Your task to perform on an android device: Show the shopping cart on walmart.com. Add "macbook pro 15 inch" to the cart on walmart.com, then select checkout. Image 0: 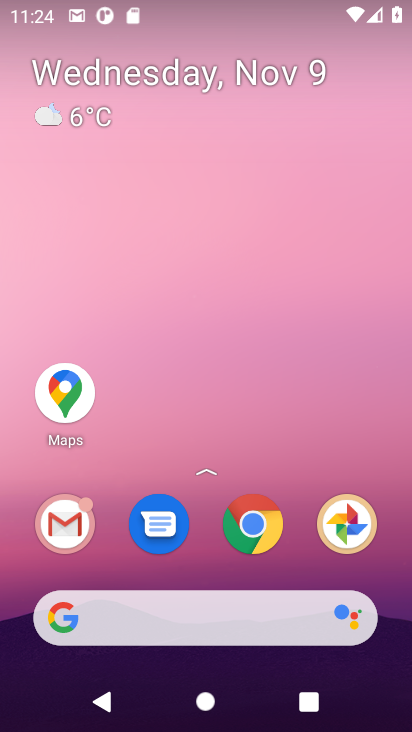
Step 0: click (192, 618)
Your task to perform on an android device: Show the shopping cart on walmart.com. Add "macbook pro 15 inch" to the cart on walmart.com, then select checkout. Image 1: 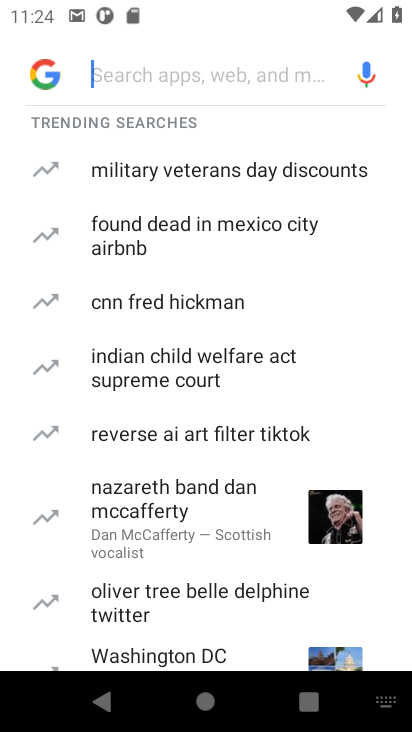
Step 1: type "macbook pro 15 inch on walmart.com"
Your task to perform on an android device: Show the shopping cart on walmart.com. Add "macbook pro 15 inch" to the cart on walmart.com, then select checkout. Image 2: 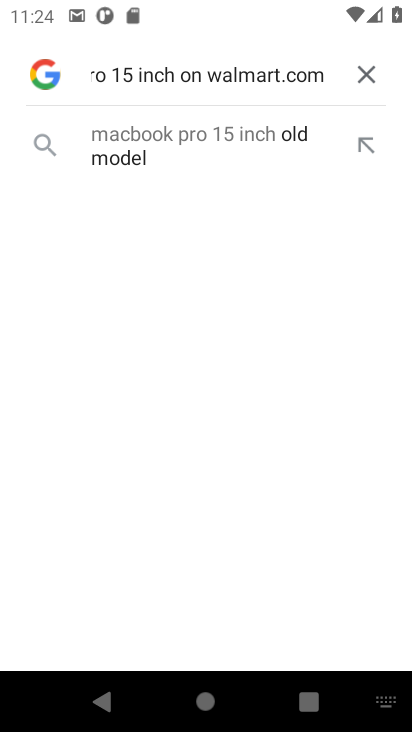
Step 2: click (326, 75)
Your task to perform on an android device: Show the shopping cart on walmart.com. Add "macbook pro 15 inch" to the cart on walmart.com, then select checkout. Image 3: 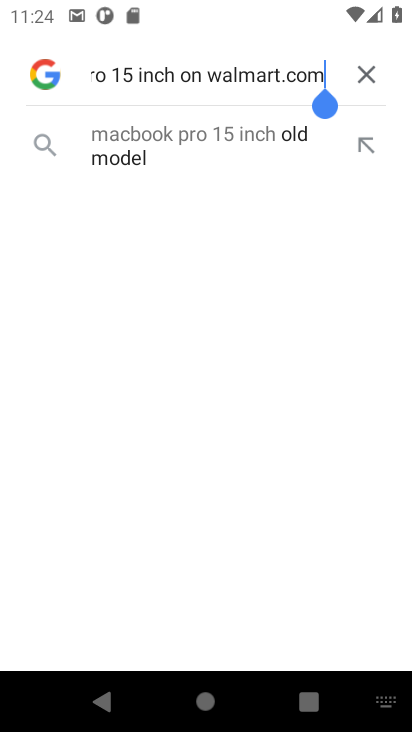
Step 3: click (373, 69)
Your task to perform on an android device: Show the shopping cart on walmart.com. Add "macbook pro 15 inch" to the cart on walmart.com, then select checkout. Image 4: 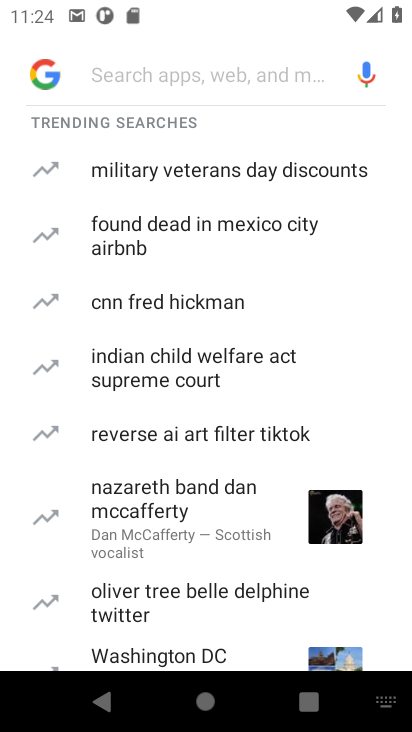
Step 4: press home button
Your task to perform on an android device: Show the shopping cart on walmart.com. Add "macbook pro 15 inch" to the cart on walmart.com, then select checkout. Image 5: 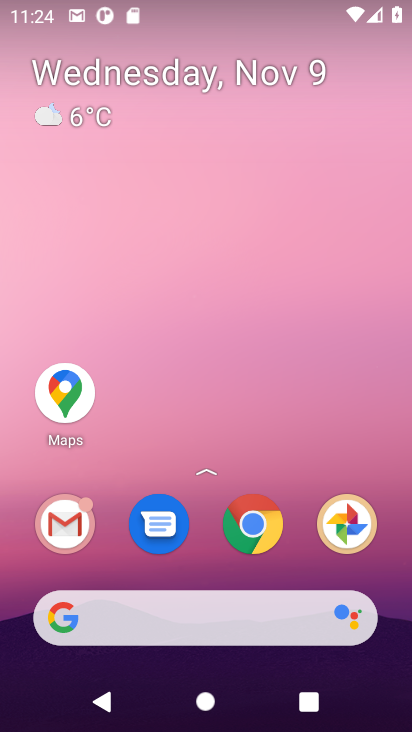
Step 5: click (239, 553)
Your task to perform on an android device: Show the shopping cart on walmart.com. Add "macbook pro 15 inch" to the cart on walmart.com, then select checkout. Image 6: 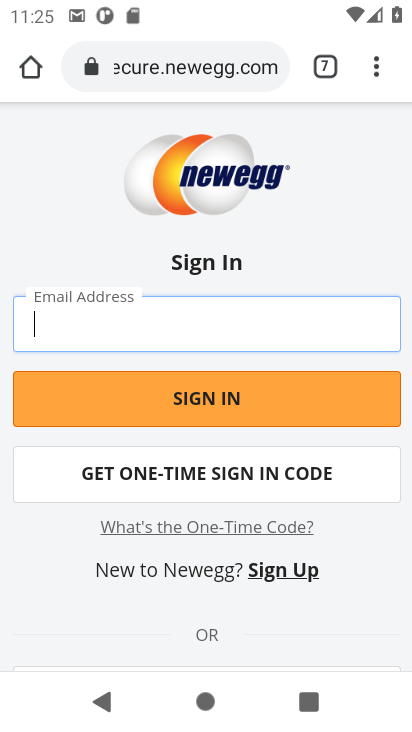
Step 6: click (330, 70)
Your task to perform on an android device: Show the shopping cart on walmart.com. Add "macbook pro 15 inch" to the cart on walmart.com, then select checkout. Image 7: 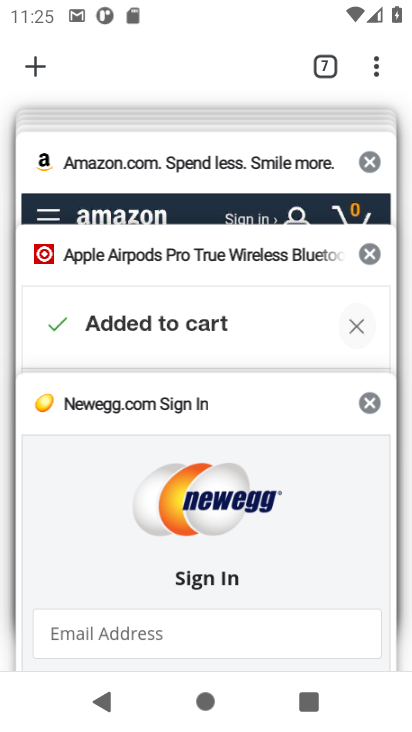
Step 7: drag from (258, 74) to (216, 334)
Your task to perform on an android device: Show the shopping cart on walmart.com. Add "macbook pro 15 inch" to the cart on walmart.com, then select checkout. Image 8: 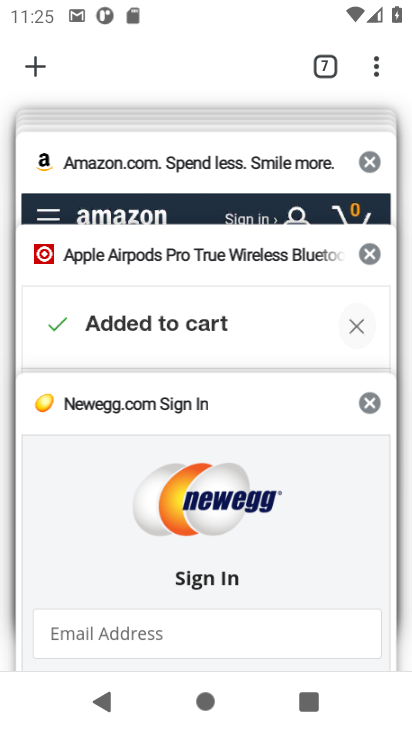
Step 8: drag from (248, 137) to (252, 210)
Your task to perform on an android device: Show the shopping cart on walmart.com. Add "macbook pro 15 inch" to the cart on walmart.com, then select checkout. Image 9: 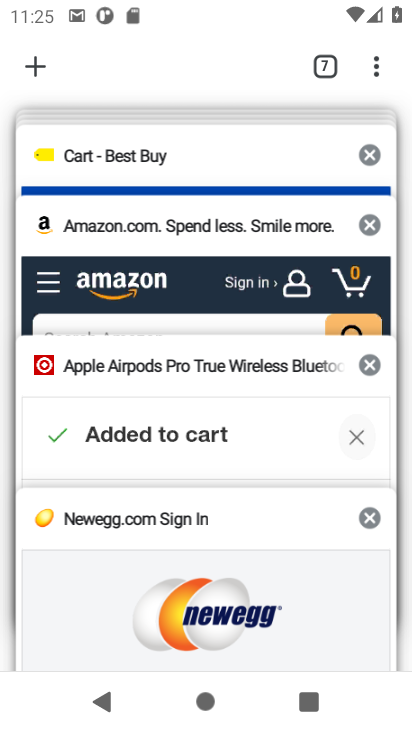
Step 9: click (232, 155)
Your task to perform on an android device: Show the shopping cart on walmart.com. Add "macbook pro 15 inch" to the cart on walmart.com, then select checkout. Image 10: 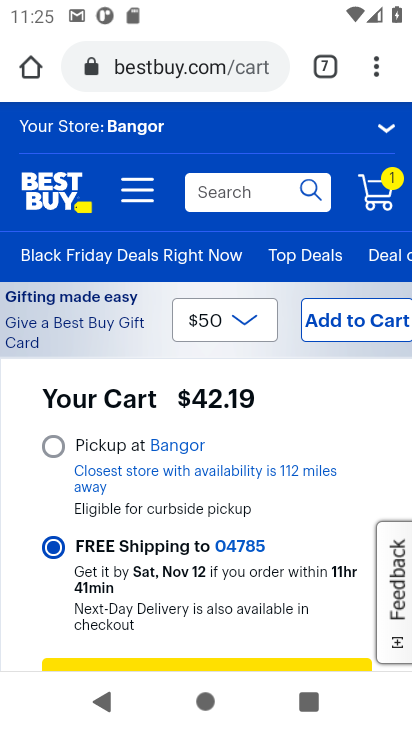
Step 10: click (267, 186)
Your task to perform on an android device: Show the shopping cart on walmart.com. Add "macbook pro 15 inch" to the cart on walmart.com, then select checkout. Image 11: 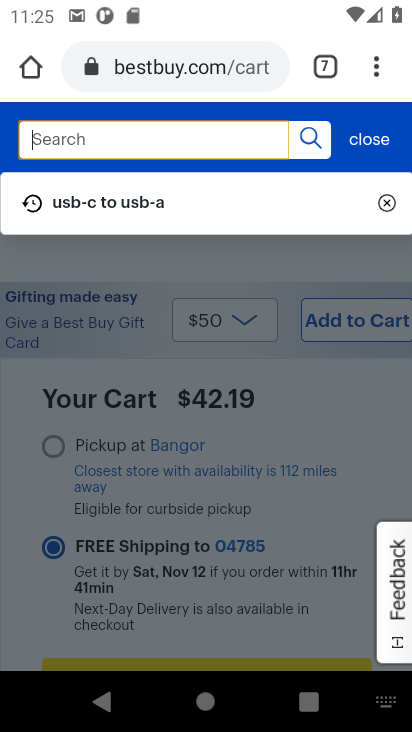
Step 11: type "macbook pro 15 inch"
Your task to perform on an android device: Show the shopping cart on walmart.com. Add "macbook pro 15 inch" to the cart on walmart.com, then select checkout. Image 12: 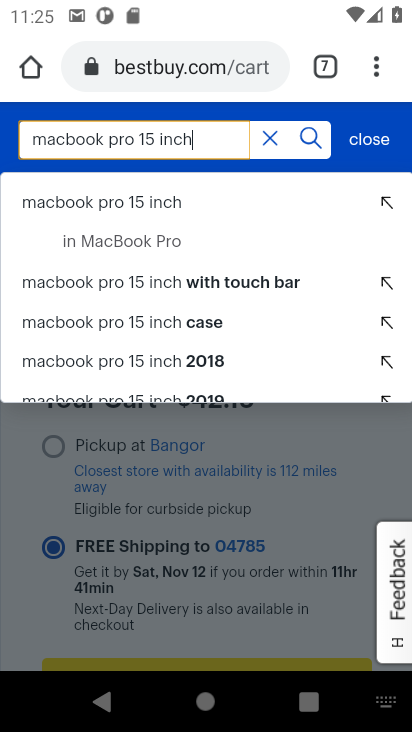
Step 12: click (169, 200)
Your task to perform on an android device: Show the shopping cart on walmart.com. Add "macbook pro 15 inch" to the cart on walmart.com, then select checkout. Image 13: 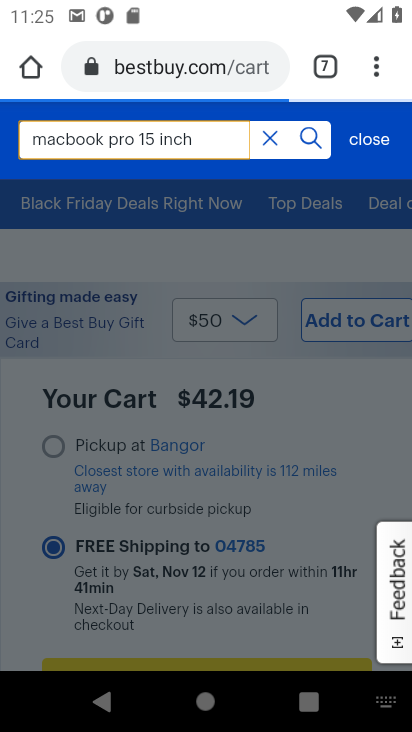
Step 13: click (309, 140)
Your task to perform on an android device: Show the shopping cart on walmart.com. Add "macbook pro 15 inch" to the cart on walmart.com, then select checkout. Image 14: 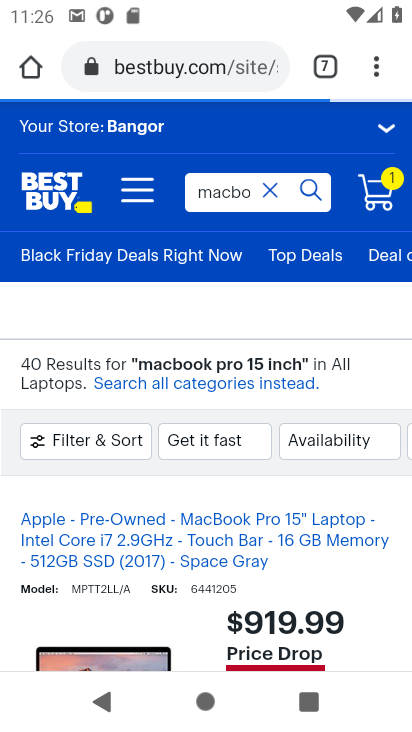
Step 14: click (342, 250)
Your task to perform on an android device: Show the shopping cart on walmart.com. Add "macbook pro 15 inch" to the cart on walmart.com, then select checkout. Image 15: 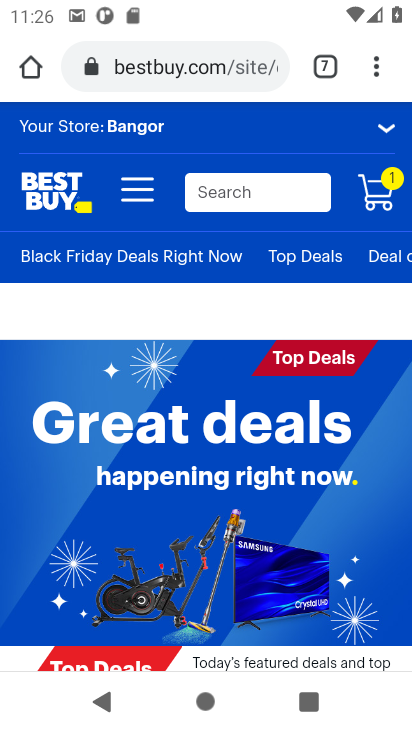
Step 15: drag from (337, 353) to (357, 306)
Your task to perform on an android device: Show the shopping cart on walmart.com. Add "macbook pro 15 inch" to the cart on walmart.com, then select checkout. Image 16: 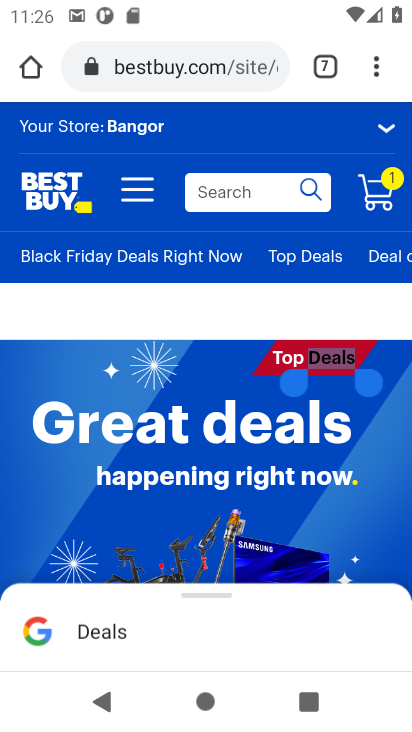
Step 16: drag from (325, 559) to (364, 339)
Your task to perform on an android device: Show the shopping cart on walmart.com. Add "macbook pro 15 inch" to the cart on walmart.com, then select checkout. Image 17: 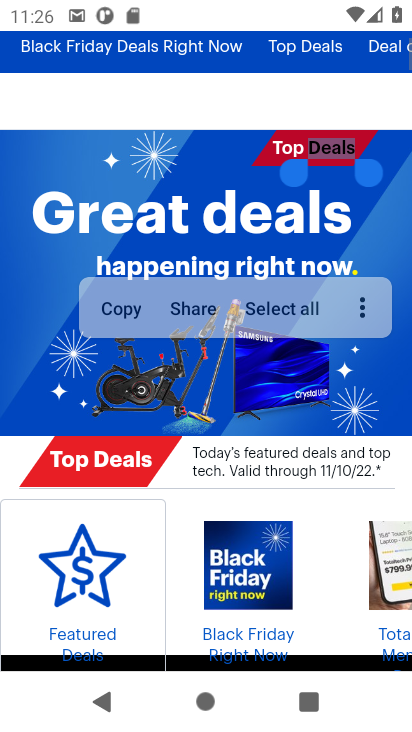
Step 17: click (377, 429)
Your task to perform on an android device: Show the shopping cart on walmart.com. Add "macbook pro 15 inch" to the cart on walmart.com, then select checkout. Image 18: 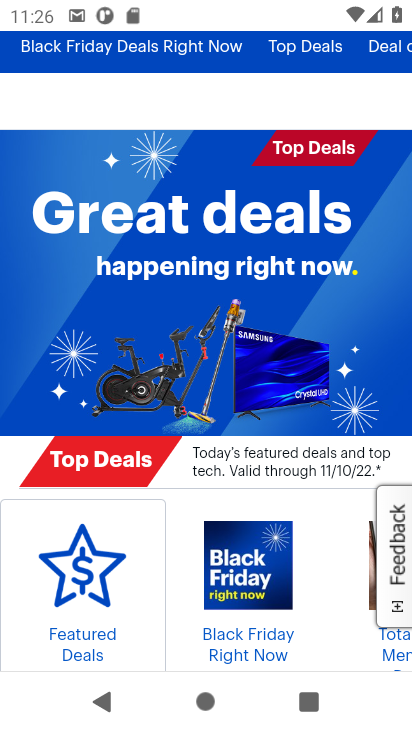
Step 18: drag from (341, 561) to (317, 320)
Your task to perform on an android device: Show the shopping cart on walmart.com. Add "macbook pro 15 inch" to the cart on walmart.com, then select checkout. Image 19: 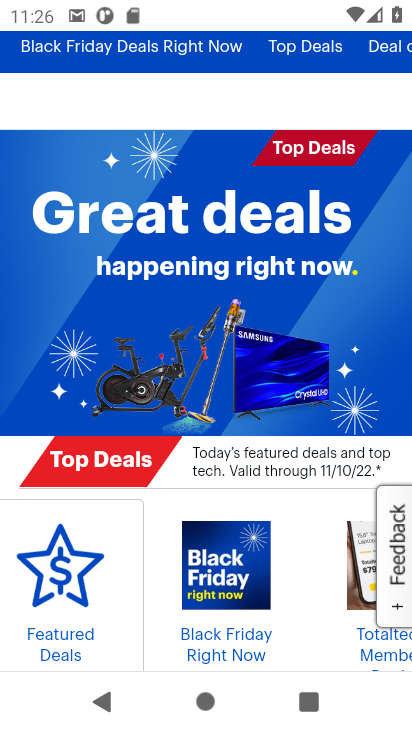
Step 19: drag from (353, 316) to (378, 245)
Your task to perform on an android device: Show the shopping cart on walmart.com. Add "macbook pro 15 inch" to the cart on walmart.com, then select checkout. Image 20: 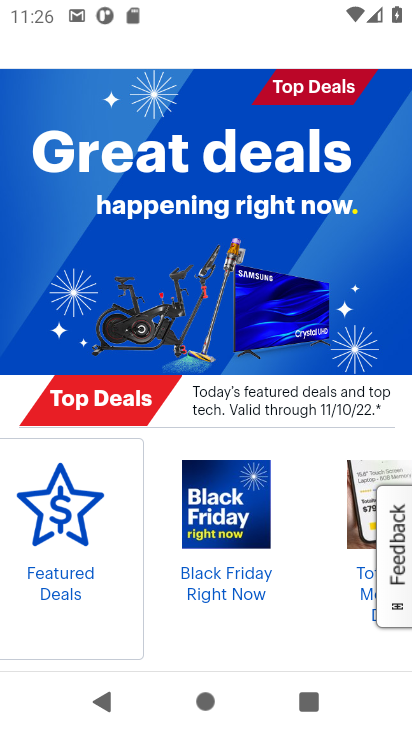
Step 20: drag from (259, 507) to (327, 114)
Your task to perform on an android device: Show the shopping cart on walmart.com. Add "macbook pro 15 inch" to the cart on walmart.com, then select checkout. Image 21: 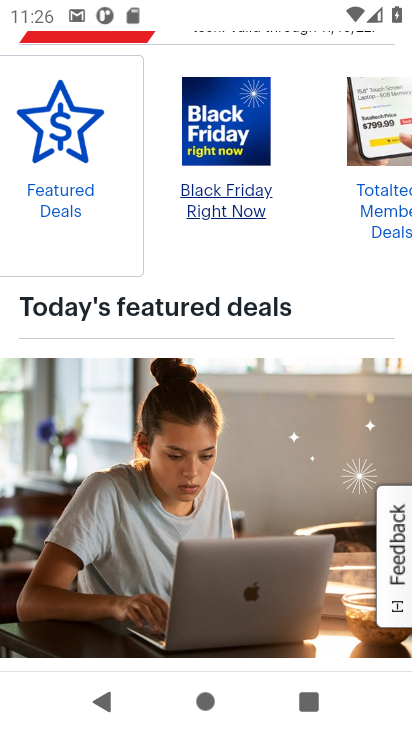
Step 21: drag from (338, 470) to (403, 213)
Your task to perform on an android device: Show the shopping cart on walmart.com. Add "macbook pro 15 inch" to the cart on walmart.com, then select checkout. Image 22: 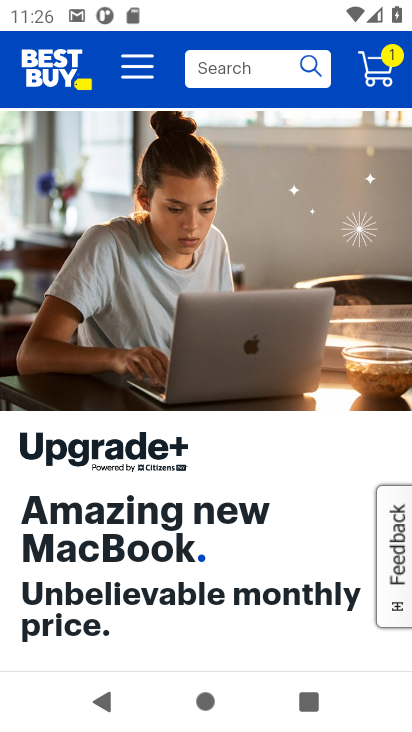
Step 22: press back button
Your task to perform on an android device: Show the shopping cart on walmart.com. Add "macbook pro 15 inch" to the cart on walmart.com, then select checkout. Image 23: 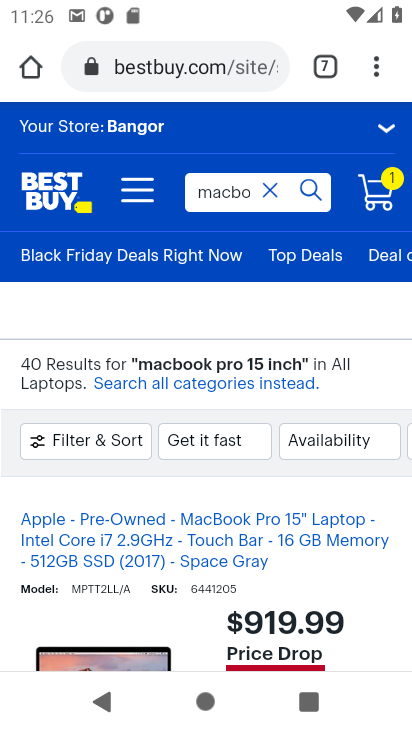
Step 23: drag from (356, 622) to (400, 303)
Your task to perform on an android device: Show the shopping cart on walmart.com. Add "macbook pro 15 inch" to the cart on walmart.com, then select checkout. Image 24: 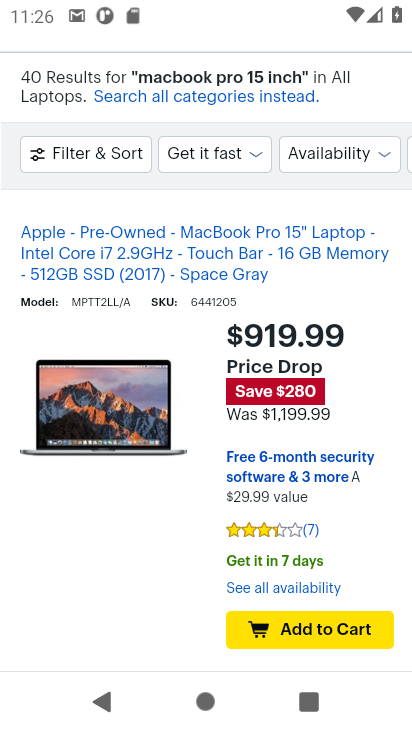
Step 24: click (306, 621)
Your task to perform on an android device: Show the shopping cart on walmart.com. Add "macbook pro 15 inch" to the cart on walmart.com, then select checkout. Image 25: 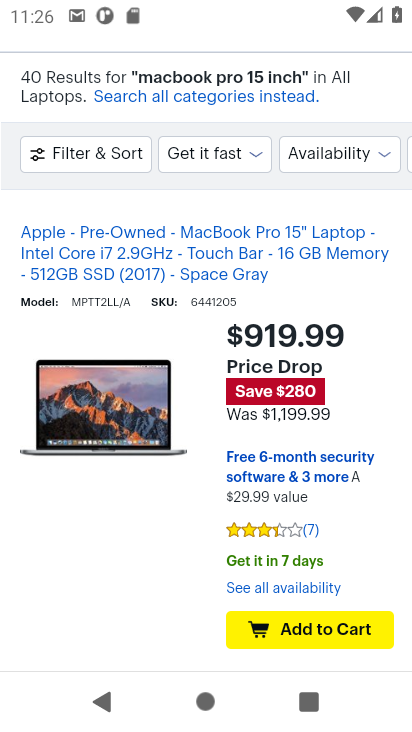
Step 25: task complete